Your task to perform on an android device: open a bookmark in the chrome app Image 0: 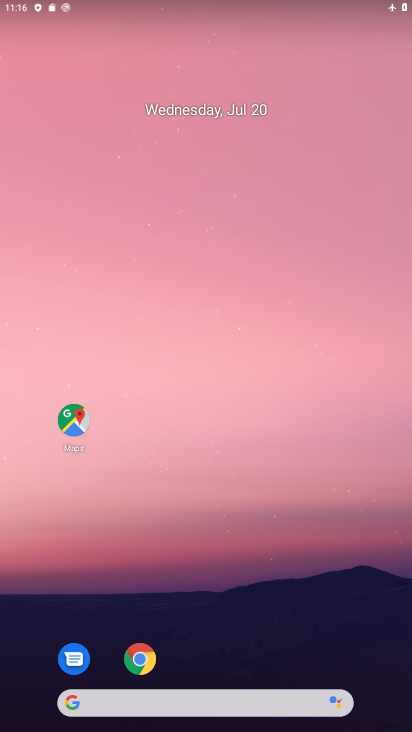
Step 0: drag from (224, 661) to (278, 146)
Your task to perform on an android device: open a bookmark in the chrome app Image 1: 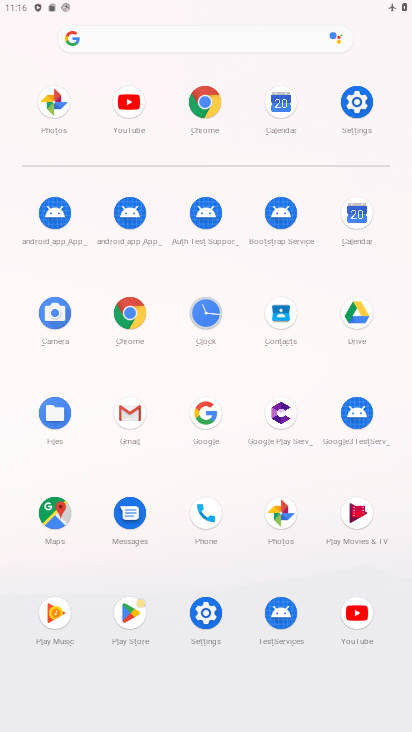
Step 1: click (140, 324)
Your task to perform on an android device: open a bookmark in the chrome app Image 2: 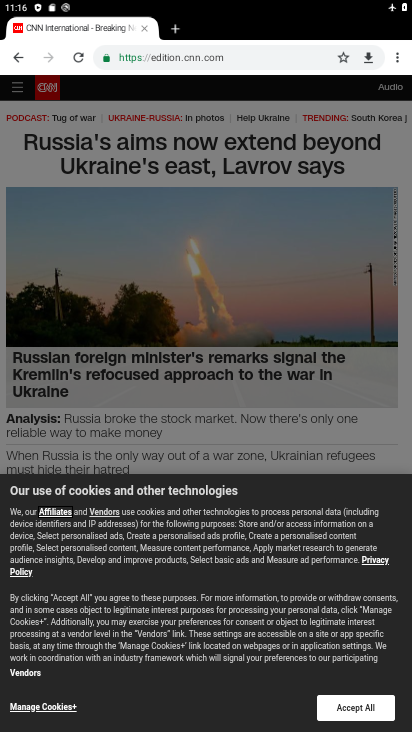
Step 2: click (395, 57)
Your task to perform on an android device: open a bookmark in the chrome app Image 3: 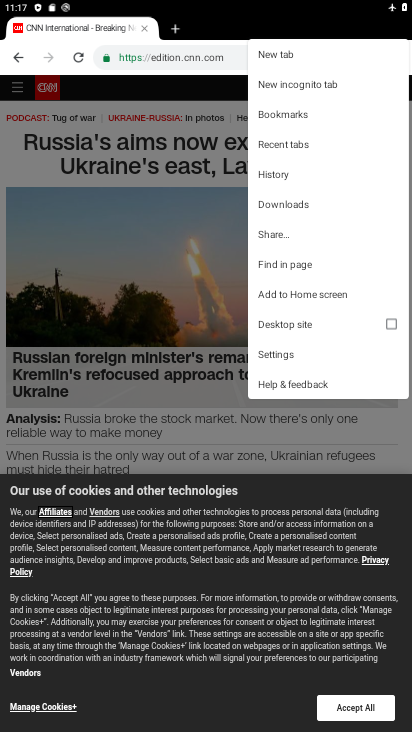
Step 3: click (298, 118)
Your task to perform on an android device: open a bookmark in the chrome app Image 4: 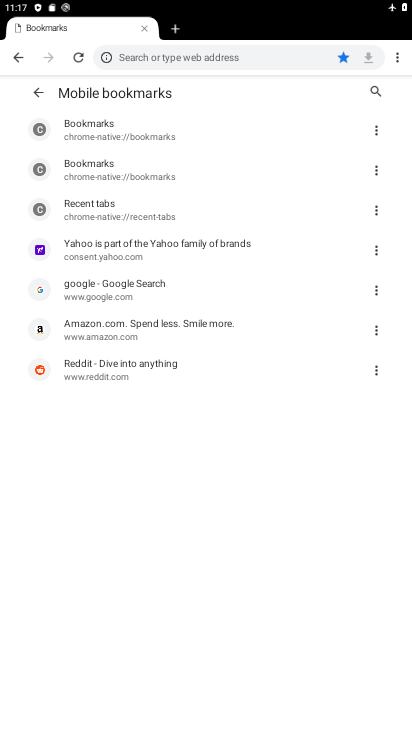
Step 4: click (118, 254)
Your task to perform on an android device: open a bookmark in the chrome app Image 5: 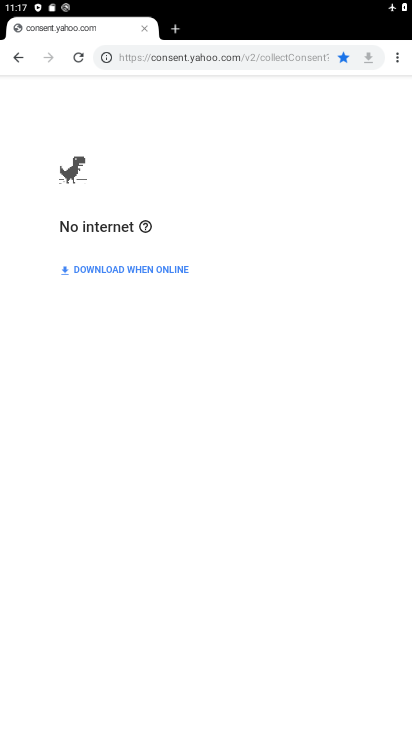
Step 5: task complete